Your task to perform on an android device: Open privacy settings Image 0: 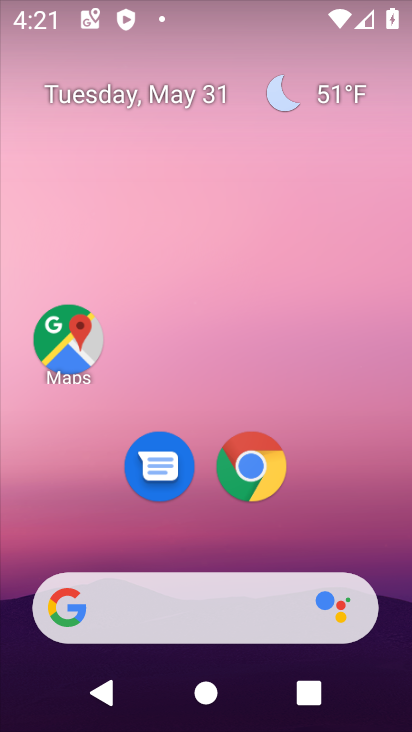
Step 0: press home button
Your task to perform on an android device: Open privacy settings Image 1: 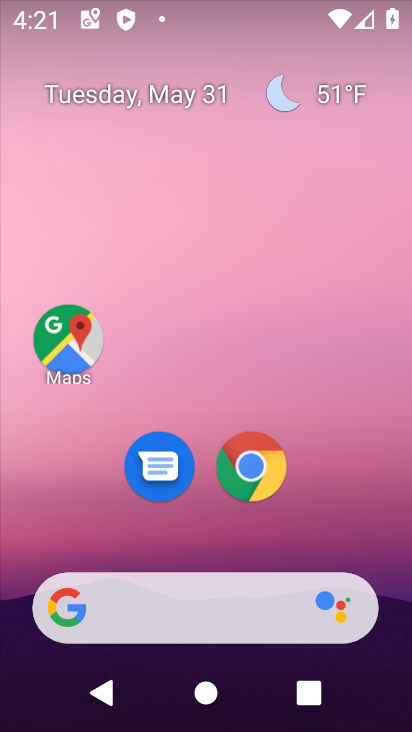
Step 1: drag from (198, 535) to (237, 33)
Your task to perform on an android device: Open privacy settings Image 2: 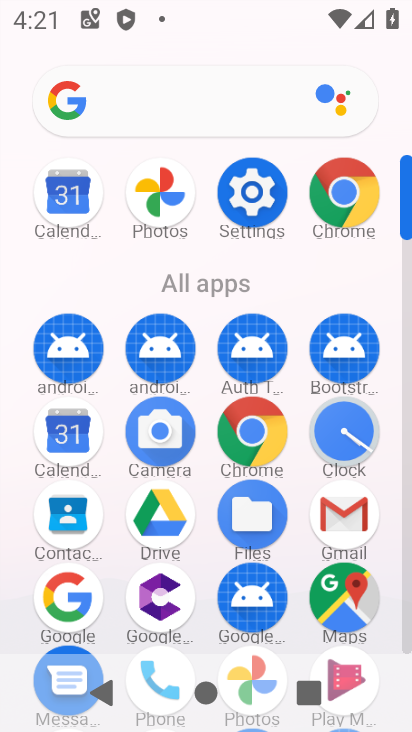
Step 2: click (247, 186)
Your task to perform on an android device: Open privacy settings Image 3: 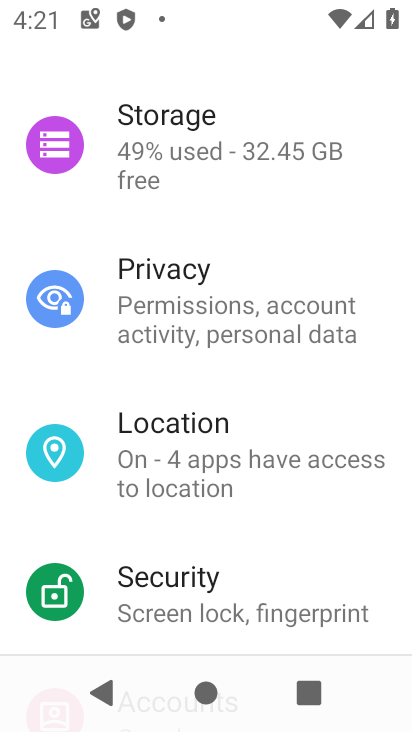
Step 3: click (179, 320)
Your task to perform on an android device: Open privacy settings Image 4: 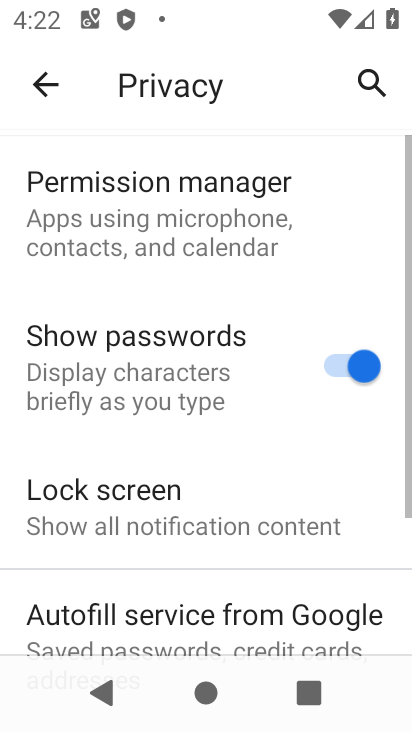
Step 4: drag from (191, 518) to (234, 86)
Your task to perform on an android device: Open privacy settings Image 5: 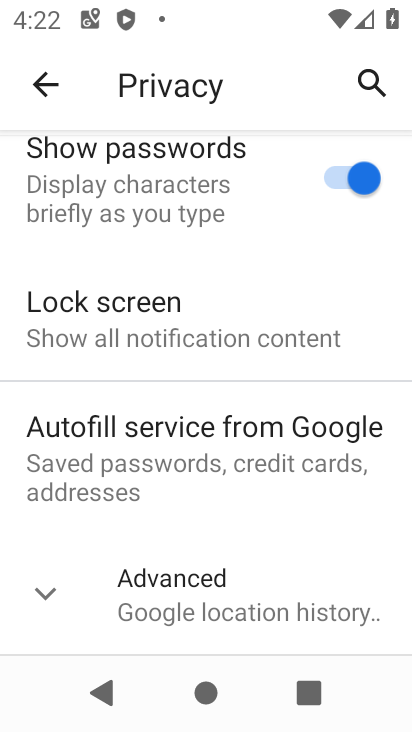
Step 5: click (65, 582)
Your task to perform on an android device: Open privacy settings Image 6: 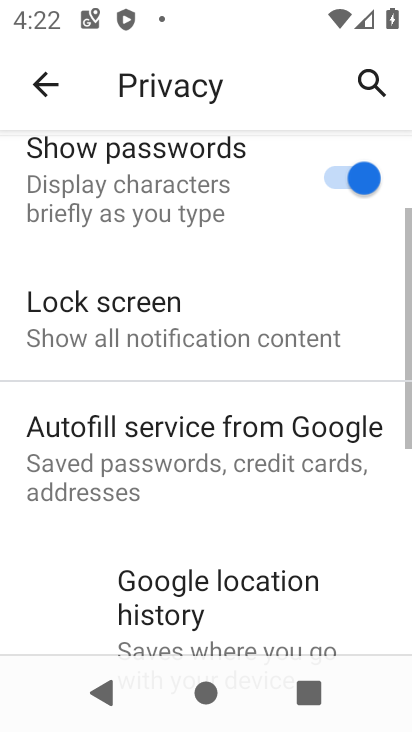
Step 6: task complete